Your task to perform on an android device: Open Reddit.com Image 0: 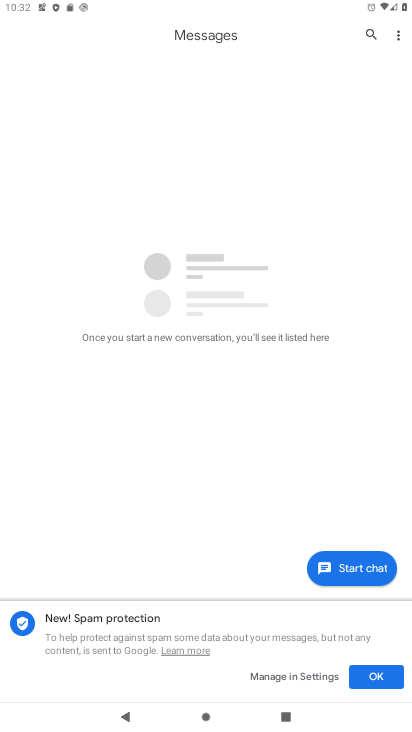
Step 0: press home button
Your task to perform on an android device: Open Reddit.com Image 1: 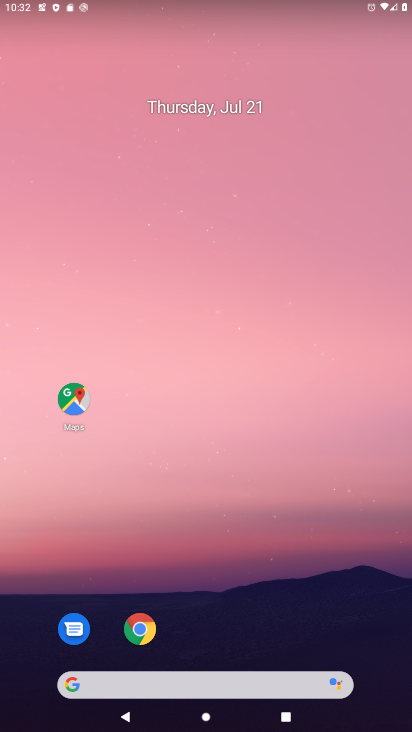
Step 1: click (142, 618)
Your task to perform on an android device: Open Reddit.com Image 2: 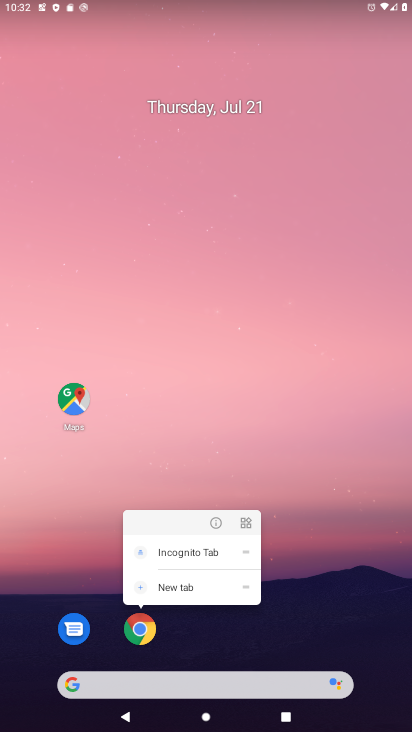
Step 2: click (142, 618)
Your task to perform on an android device: Open Reddit.com Image 3: 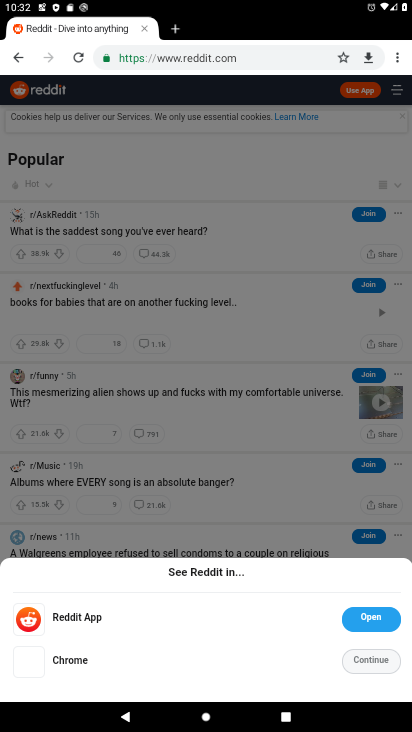
Step 3: click (168, 61)
Your task to perform on an android device: Open Reddit.com Image 4: 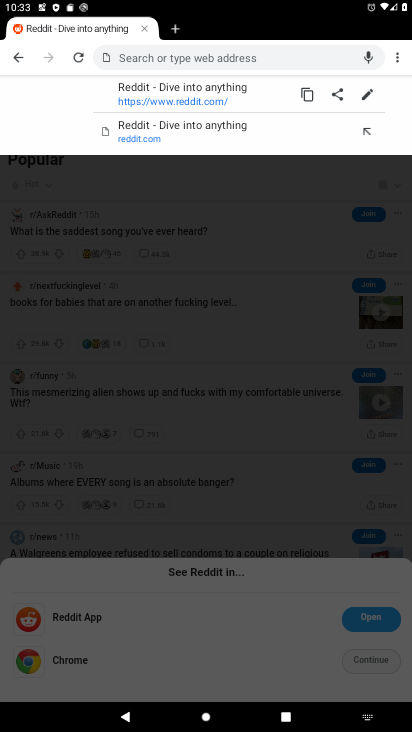
Step 4: type "Reddit.com"
Your task to perform on an android device: Open Reddit.com Image 5: 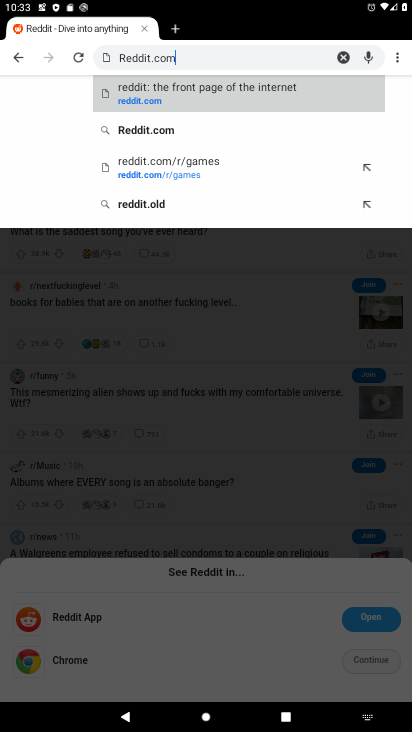
Step 5: type ""
Your task to perform on an android device: Open Reddit.com Image 6: 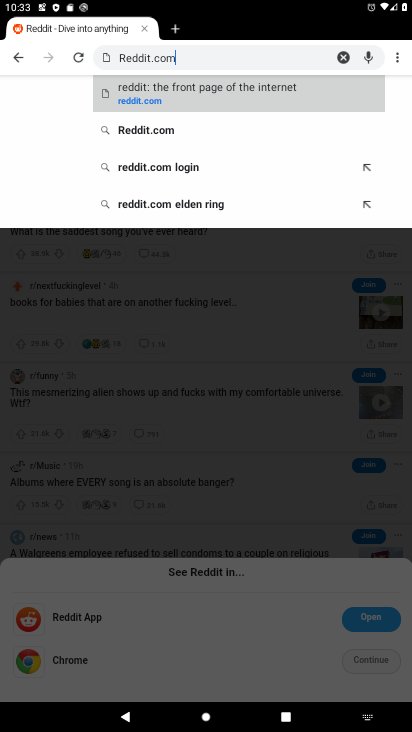
Step 6: click (154, 86)
Your task to perform on an android device: Open Reddit.com Image 7: 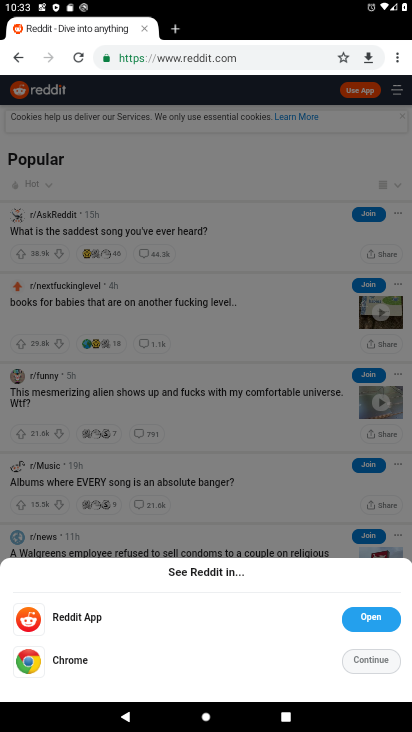
Step 7: task complete